Your task to perform on an android device: allow notifications from all sites in the chrome app Image 0: 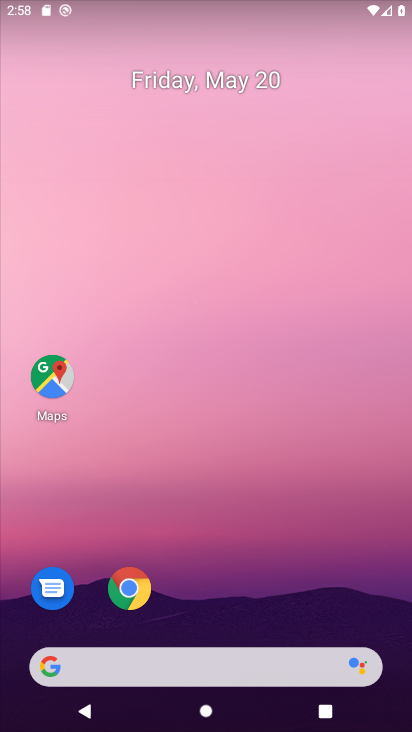
Step 0: click (127, 590)
Your task to perform on an android device: allow notifications from all sites in the chrome app Image 1: 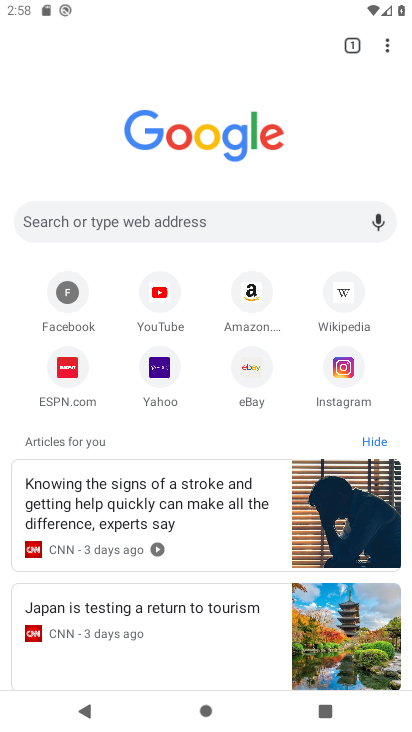
Step 1: drag from (389, 39) to (254, 378)
Your task to perform on an android device: allow notifications from all sites in the chrome app Image 2: 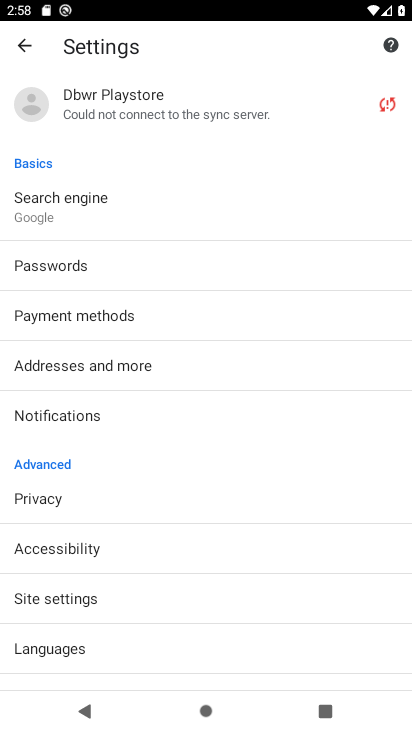
Step 2: click (102, 418)
Your task to perform on an android device: allow notifications from all sites in the chrome app Image 3: 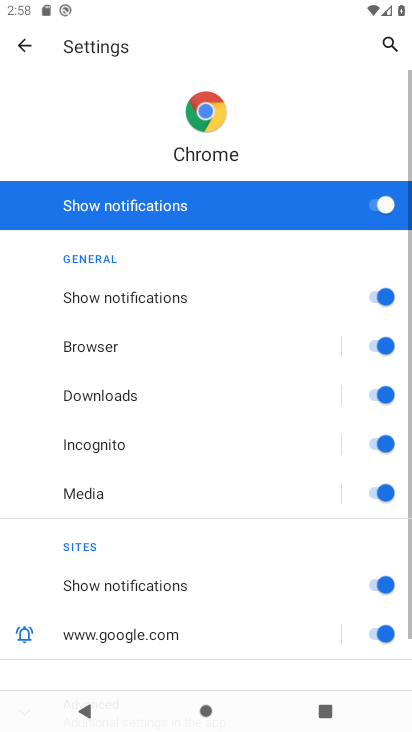
Step 3: task complete